Your task to perform on an android device: change the clock display to digital Image 0: 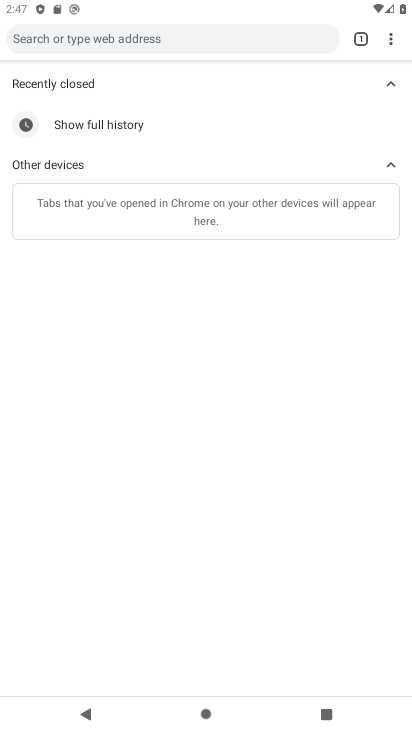
Step 0: press home button
Your task to perform on an android device: change the clock display to digital Image 1: 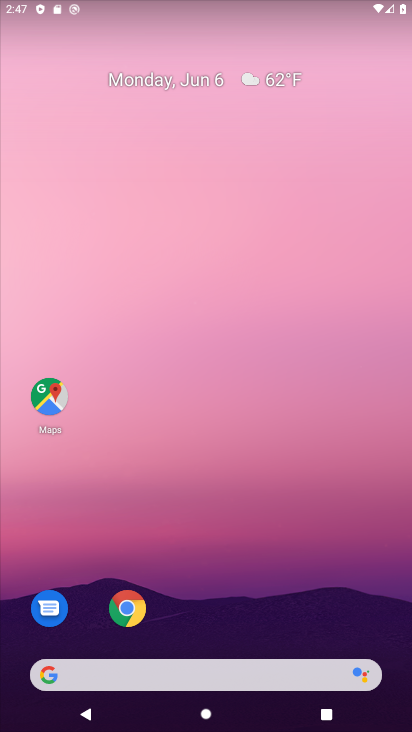
Step 1: drag from (272, 605) to (387, 0)
Your task to perform on an android device: change the clock display to digital Image 2: 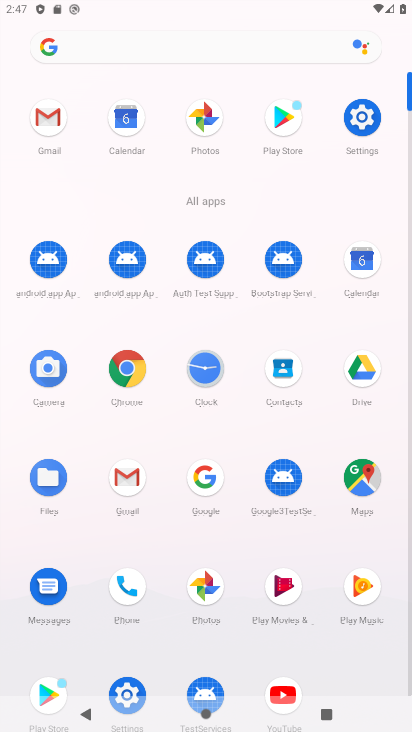
Step 2: click (206, 370)
Your task to perform on an android device: change the clock display to digital Image 3: 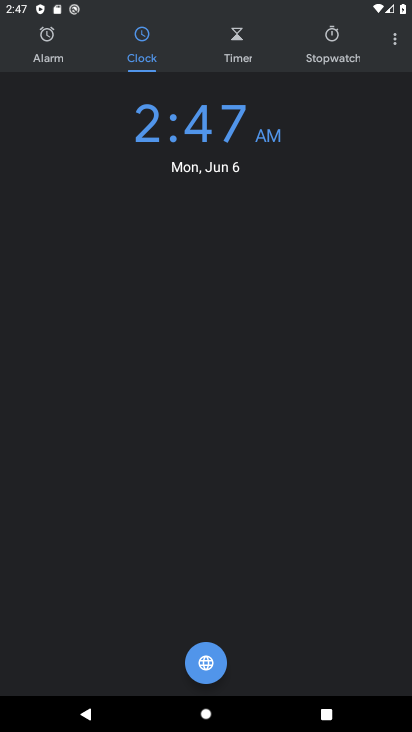
Step 3: click (394, 48)
Your task to perform on an android device: change the clock display to digital Image 4: 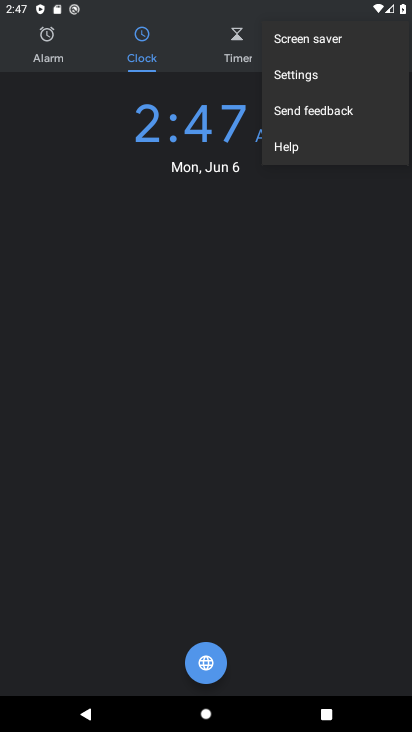
Step 4: click (349, 80)
Your task to perform on an android device: change the clock display to digital Image 5: 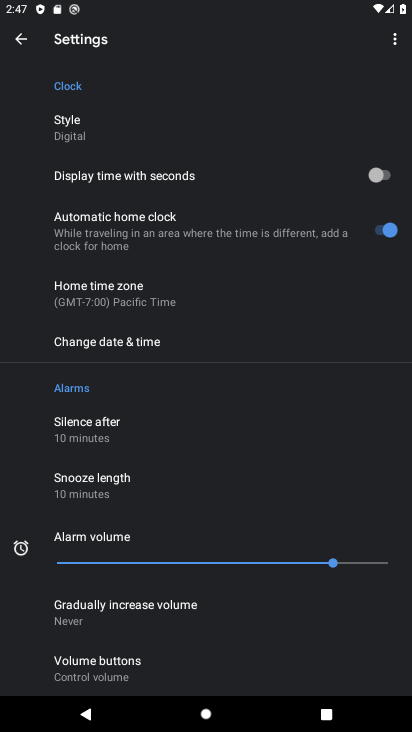
Step 5: click (70, 143)
Your task to perform on an android device: change the clock display to digital Image 6: 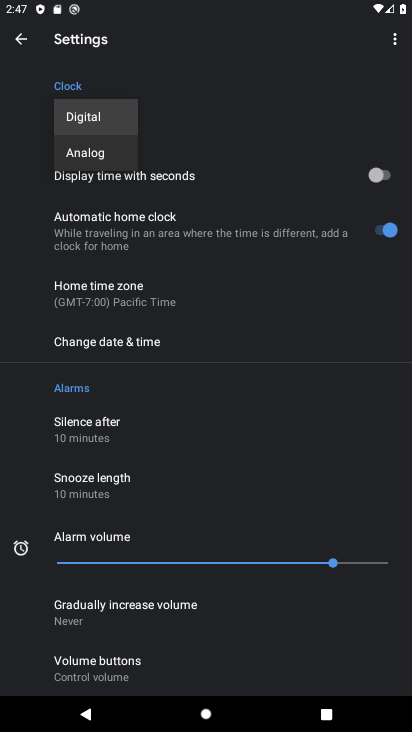
Step 6: click (91, 124)
Your task to perform on an android device: change the clock display to digital Image 7: 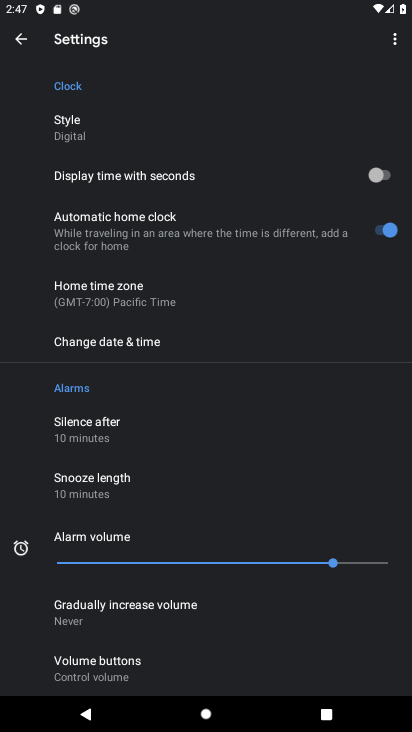
Step 7: task complete